Your task to perform on an android device: open a new tab in the chrome app Image 0: 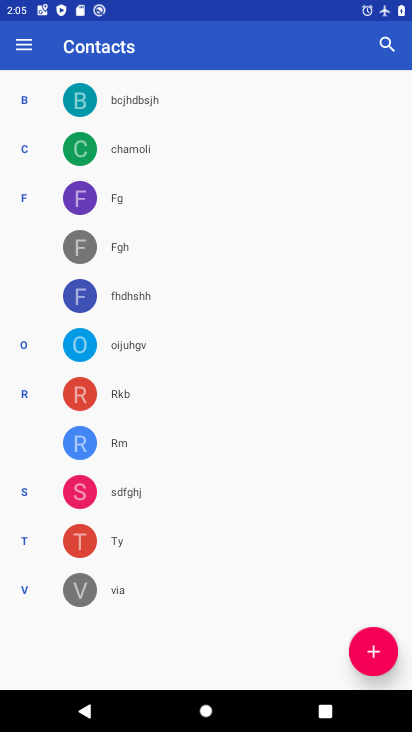
Step 0: press home button
Your task to perform on an android device: open a new tab in the chrome app Image 1: 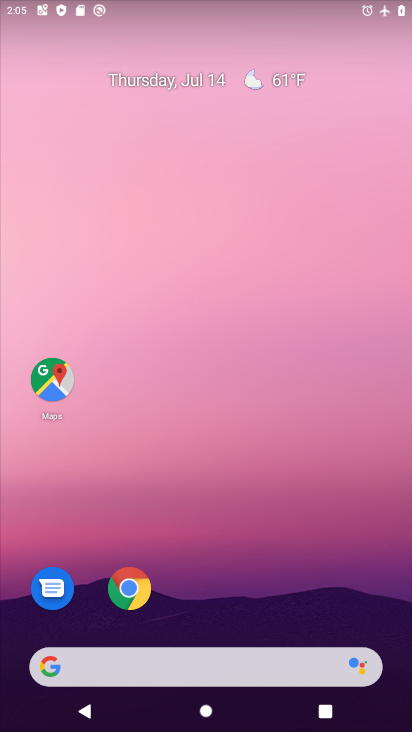
Step 1: drag from (227, 601) to (271, 308)
Your task to perform on an android device: open a new tab in the chrome app Image 2: 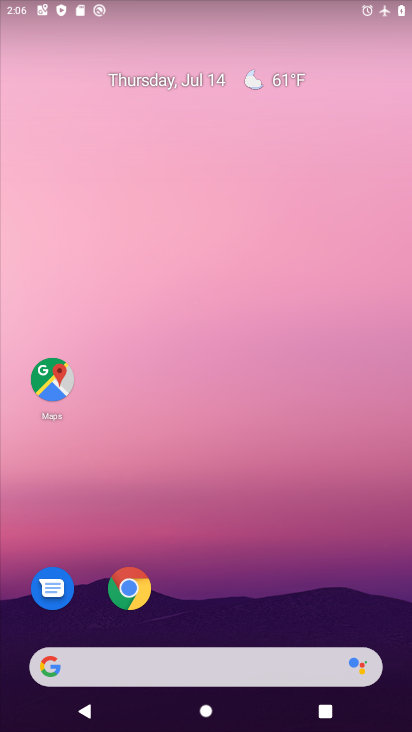
Step 2: drag from (267, 606) to (263, 203)
Your task to perform on an android device: open a new tab in the chrome app Image 3: 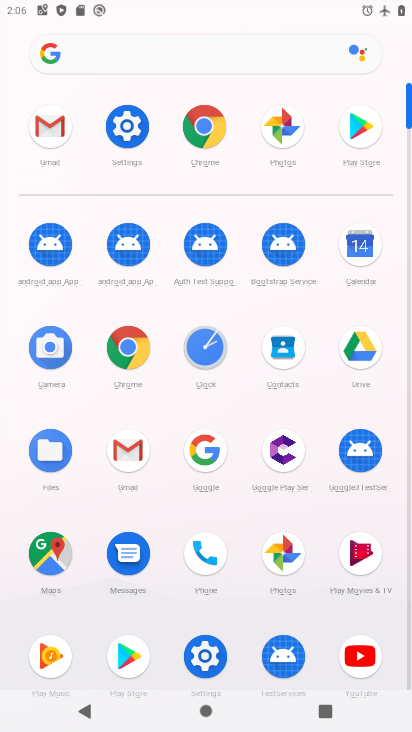
Step 3: click (213, 119)
Your task to perform on an android device: open a new tab in the chrome app Image 4: 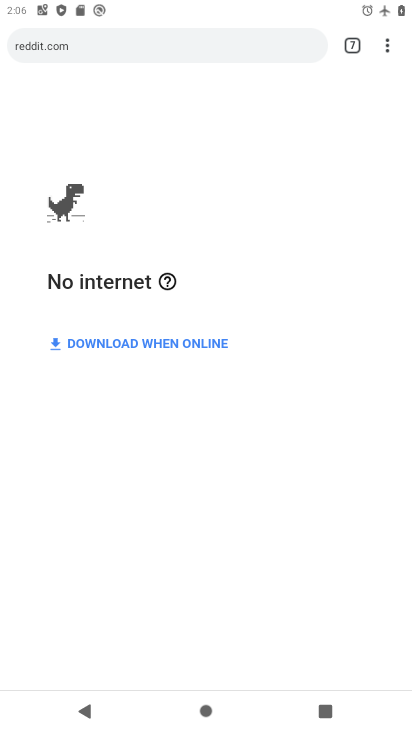
Step 4: click (392, 50)
Your task to perform on an android device: open a new tab in the chrome app Image 5: 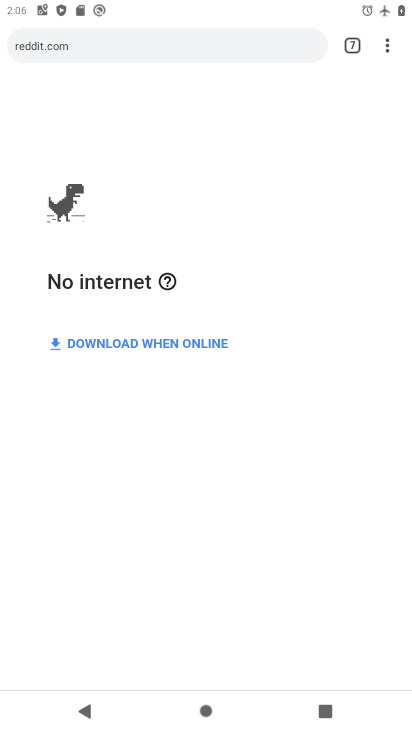
Step 5: click (387, 43)
Your task to perform on an android device: open a new tab in the chrome app Image 6: 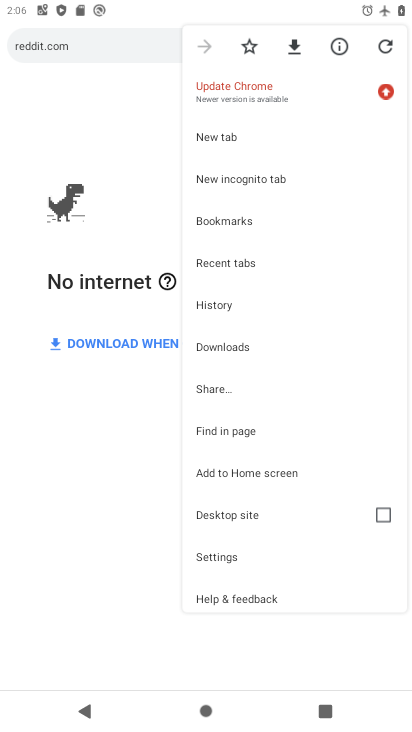
Step 6: click (247, 130)
Your task to perform on an android device: open a new tab in the chrome app Image 7: 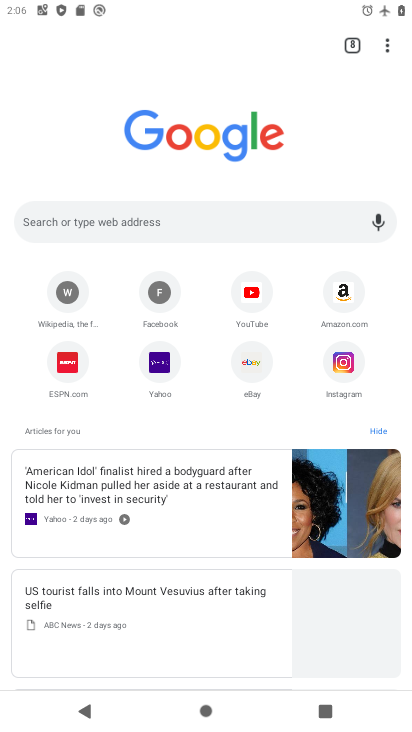
Step 7: task complete